Your task to perform on an android device: Open the phone app and click the voicemail tab. Image 0: 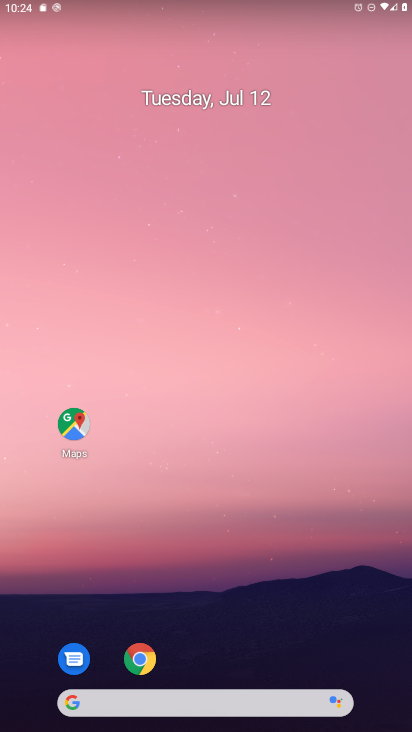
Step 0: drag from (202, 703) to (170, 118)
Your task to perform on an android device: Open the phone app and click the voicemail tab. Image 1: 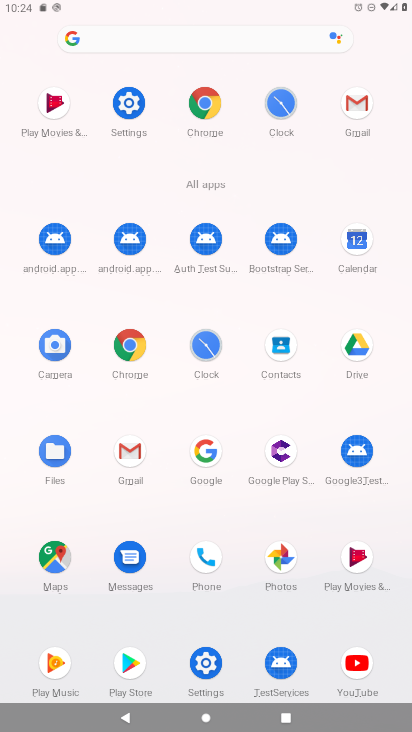
Step 1: click (202, 552)
Your task to perform on an android device: Open the phone app and click the voicemail tab. Image 2: 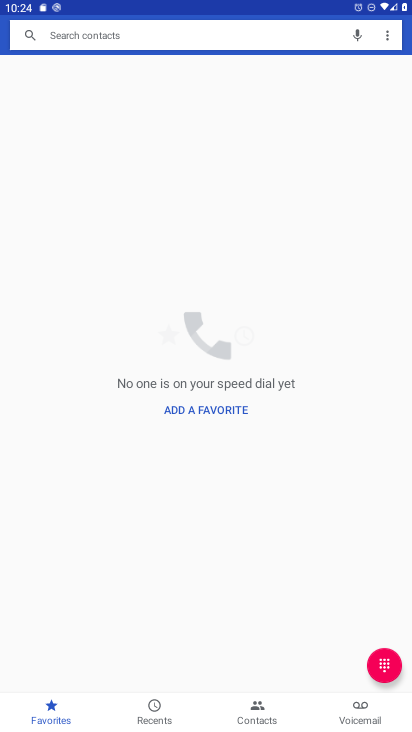
Step 2: click (364, 715)
Your task to perform on an android device: Open the phone app and click the voicemail tab. Image 3: 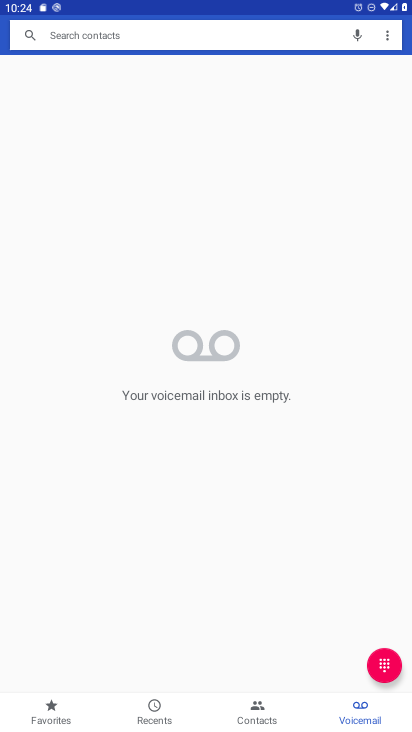
Step 3: task complete